Your task to perform on an android device: Show me the alarms in the clock app Image 0: 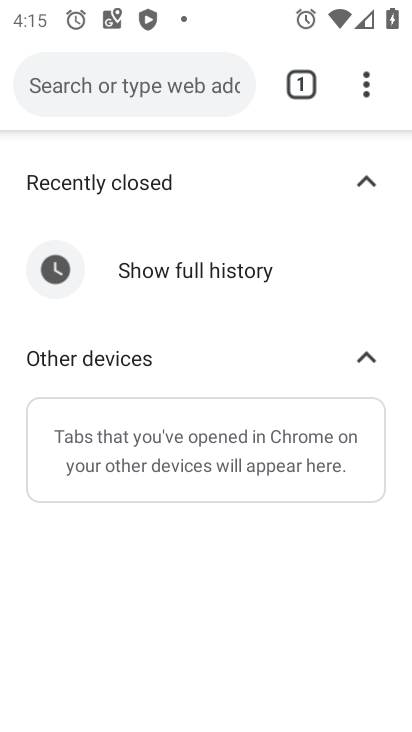
Step 0: press home button
Your task to perform on an android device: Show me the alarms in the clock app Image 1: 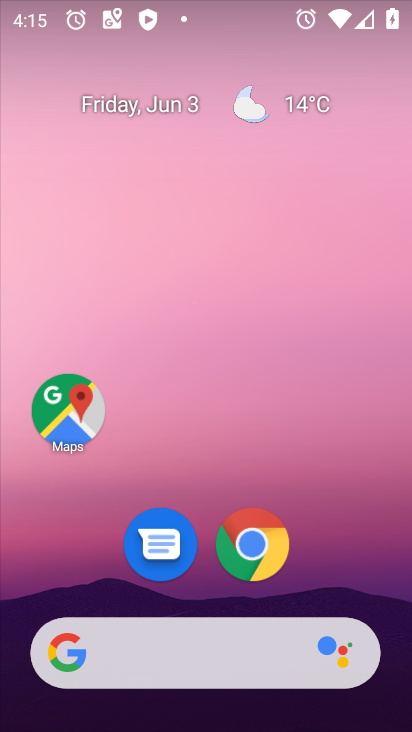
Step 1: drag from (392, 610) to (347, 161)
Your task to perform on an android device: Show me the alarms in the clock app Image 2: 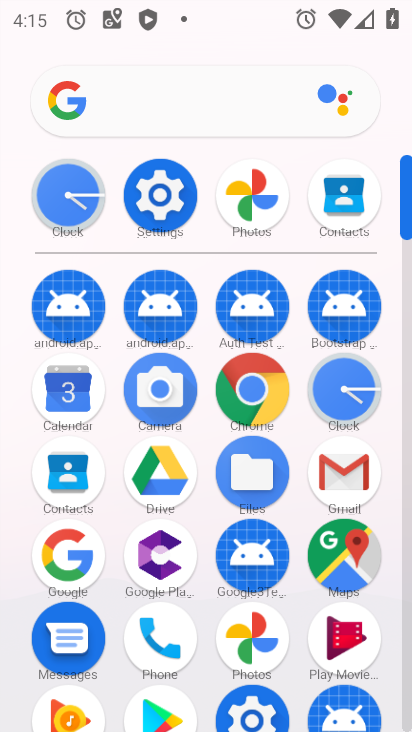
Step 2: click (408, 682)
Your task to perform on an android device: Show me the alarms in the clock app Image 3: 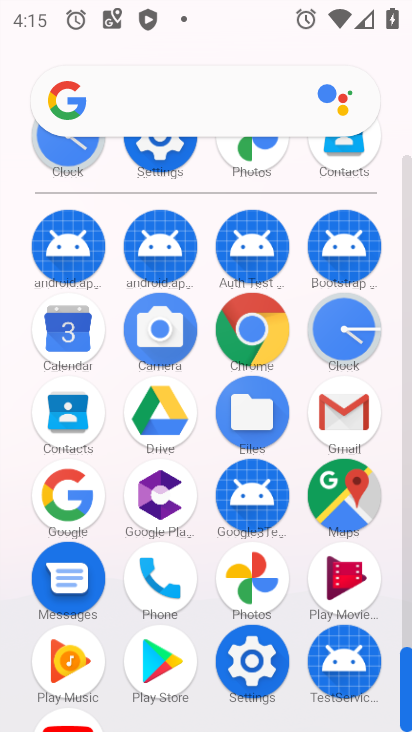
Step 3: click (340, 321)
Your task to perform on an android device: Show me the alarms in the clock app Image 4: 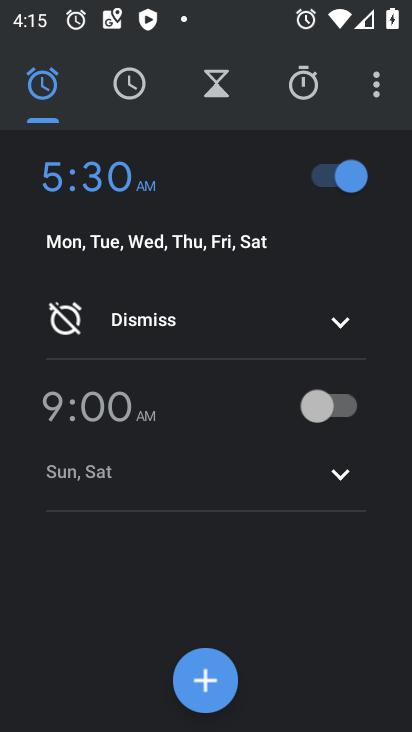
Step 4: task complete